Your task to perform on an android device: toggle priority inbox in the gmail app Image 0: 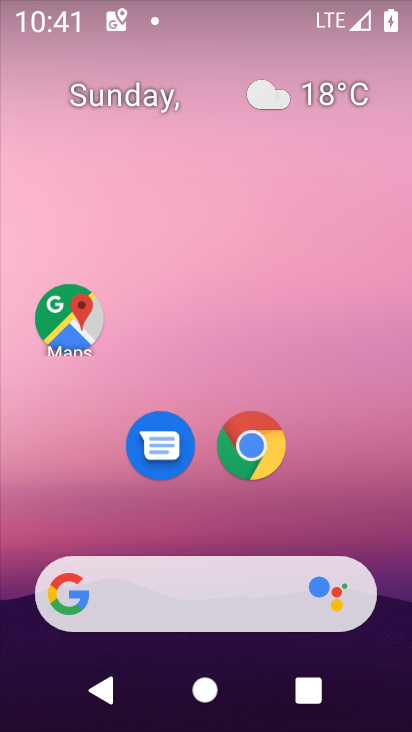
Step 0: drag from (204, 529) to (219, 179)
Your task to perform on an android device: toggle priority inbox in the gmail app Image 1: 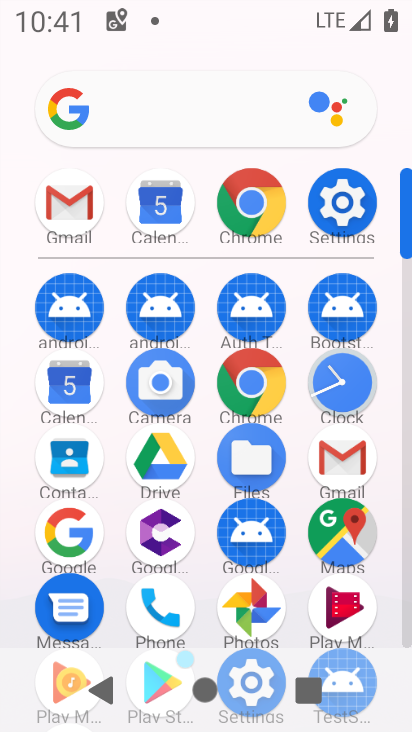
Step 1: click (342, 447)
Your task to perform on an android device: toggle priority inbox in the gmail app Image 2: 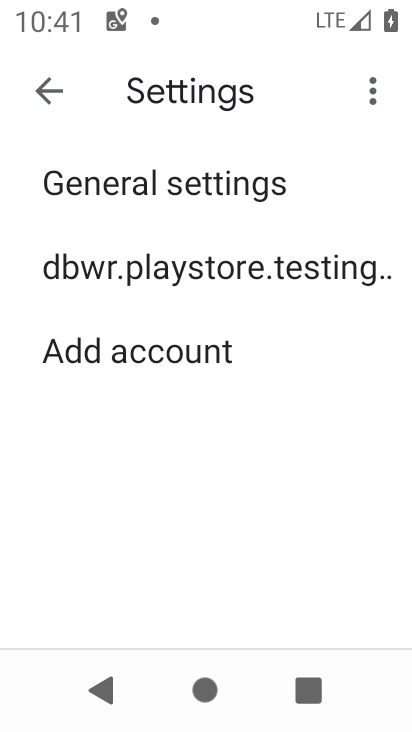
Step 2: click (276, 262)
Your task to perform on an android device: toggle priority inbox in the gmail app Image 3: 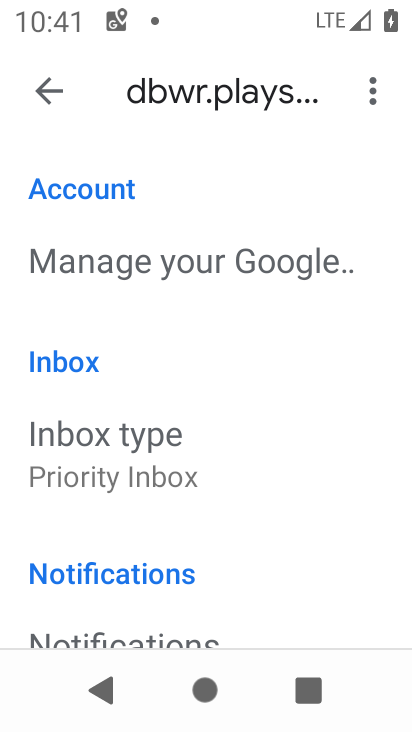
Step 3: click (175, 448)
Your task to perform on an android device: toggle priority inbox in the gmail app Image 4: 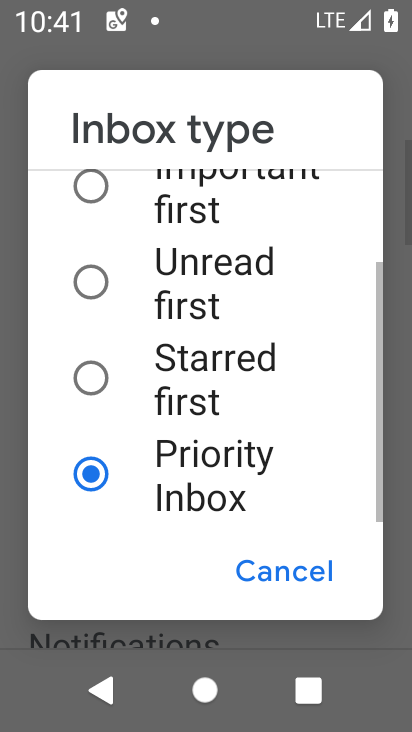
Step 4: click (100, 461)
Your task to perform on an android device: toggle priority inbox in the gmail app Image 5: 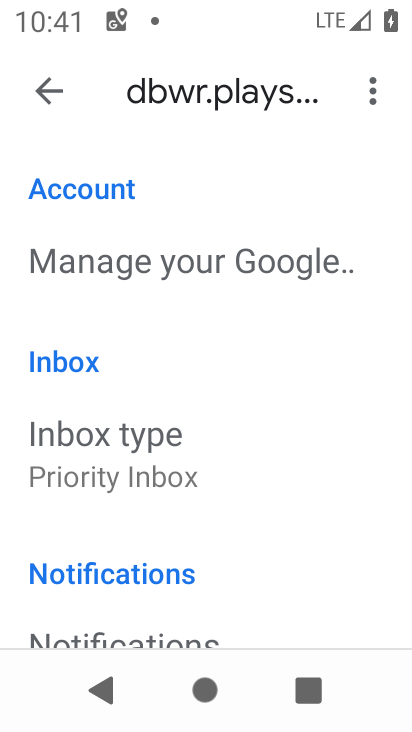
Step 5: task complete